Your task to perform on an android device: see tabs open on other devices in the chrome app Image 0: 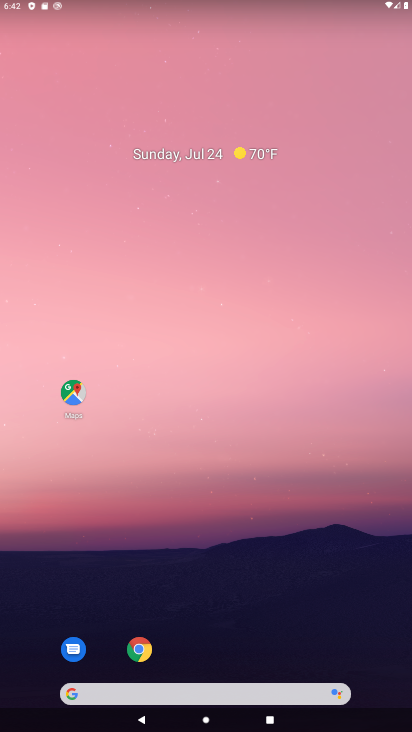
Step 0: click (136, 652)
Your task to perform on an android device: see tabs open on other devices in the chrome app Image 1: 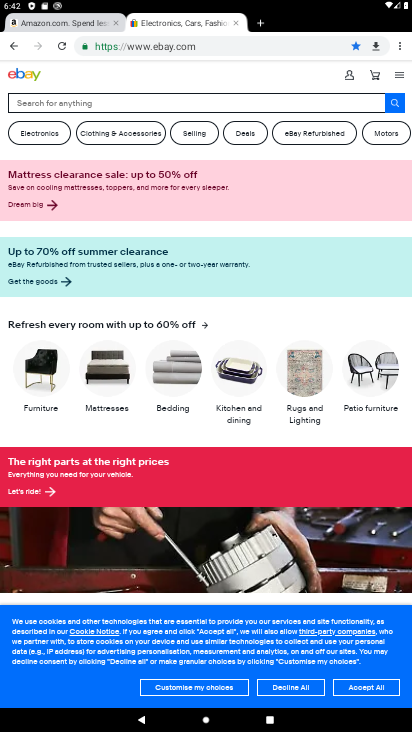
Step 1: click (401, 47)
Your task to perform on an android device: see tabs open on other devices in the chrome app Image 2: 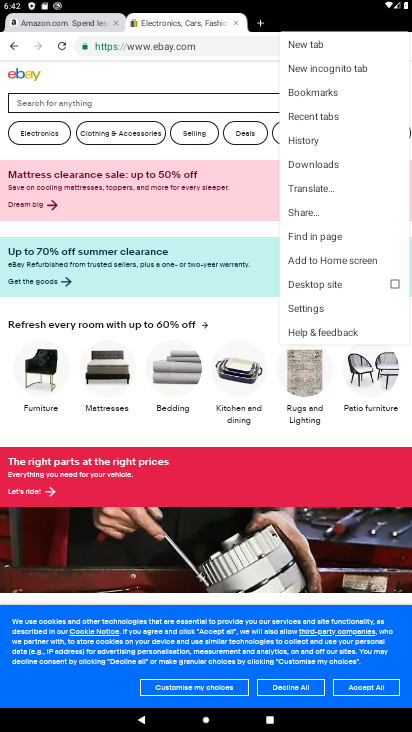
Step 2: click (318, 119)
Your task to perform on an android device: see tabs open on other devices in the chrome app Image 3: 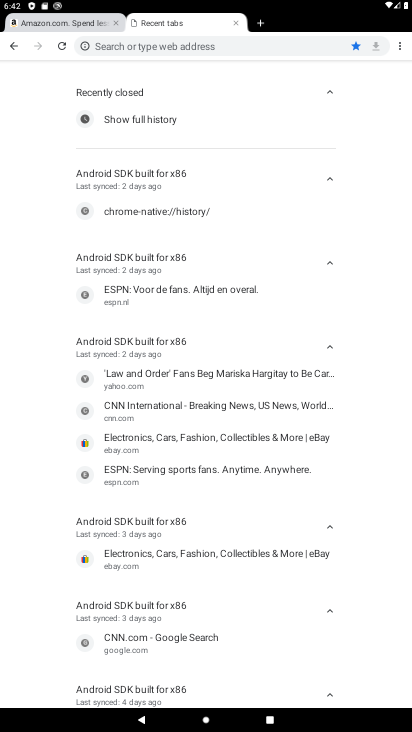
Step 3: task complete